Your task to perform on an android device: Open calendar and show me the second week of next month Image 0: 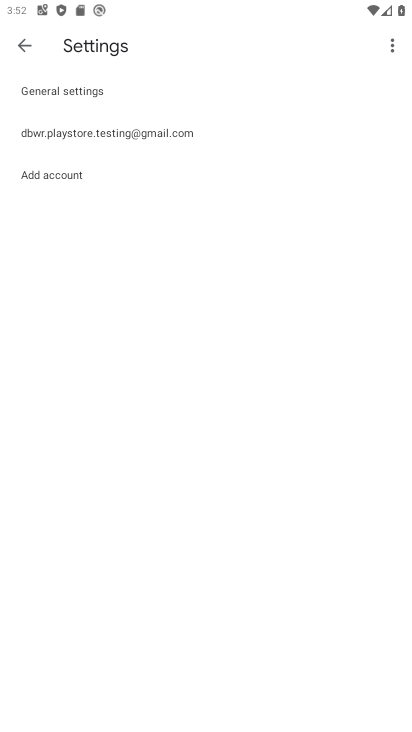
Step 0: press back button
Your task to perform on an android device: Open calendar and show me the second week of next month Image 1: 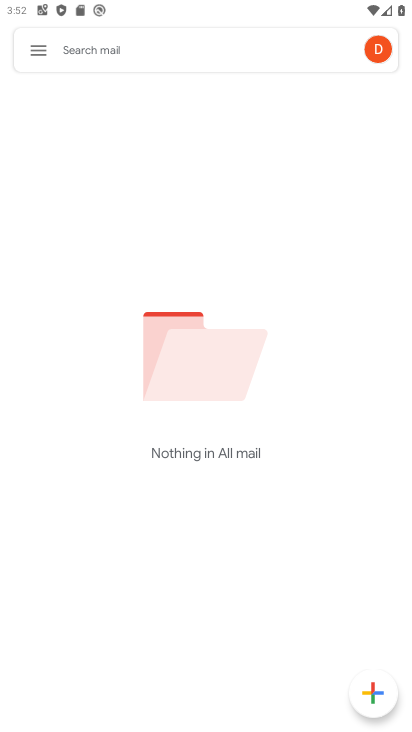
Step 1: press back button
Your task to perform on an android device: Open calendar and show me the second week of next month Image 2: 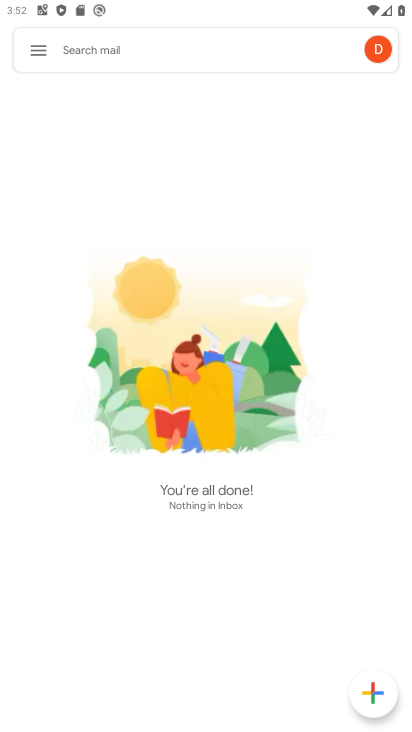
Step 2: press back button
Your task to perform on an android device: Open calendar and show me the second week of next month Image 3: 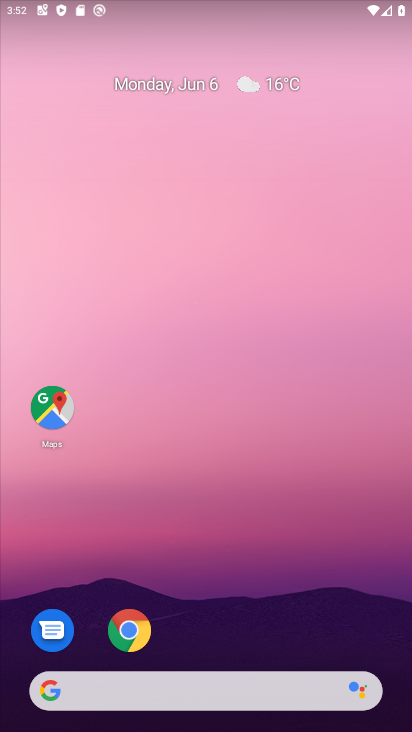
Step 3: drag from (129, 587) to (189, 102)
Your task to perform on an android device: Open calendar and show me the second week of next month Image 4: 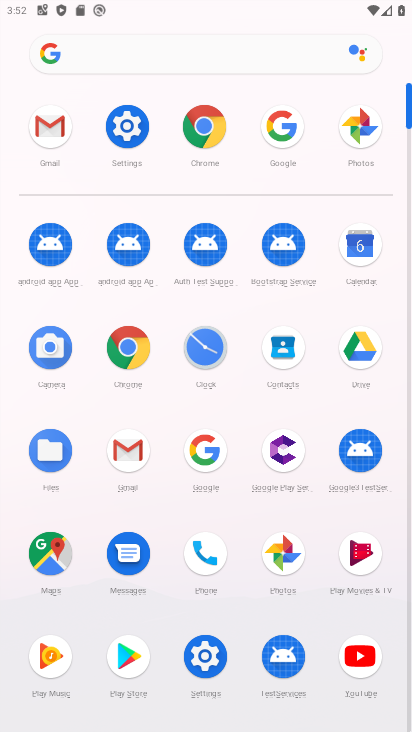
Step 4: click (362, 261)
Your task to perform on an android device: Open calendar and show me the second week of next month Image 5: 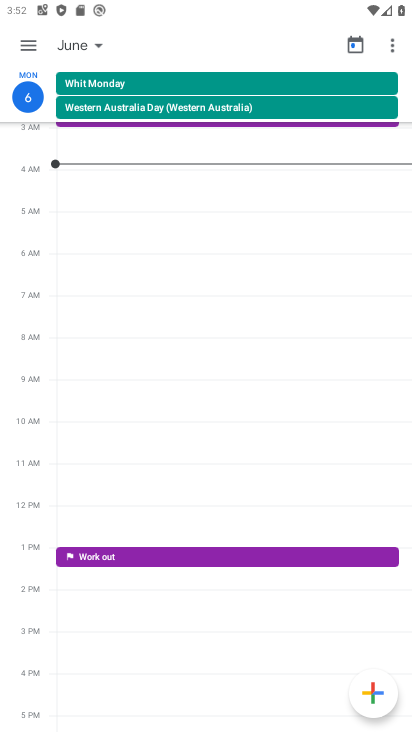
Step 5: click (72, 60)
Your task to perform on an android device: Open calendar and show me the second week of next month Image 6: 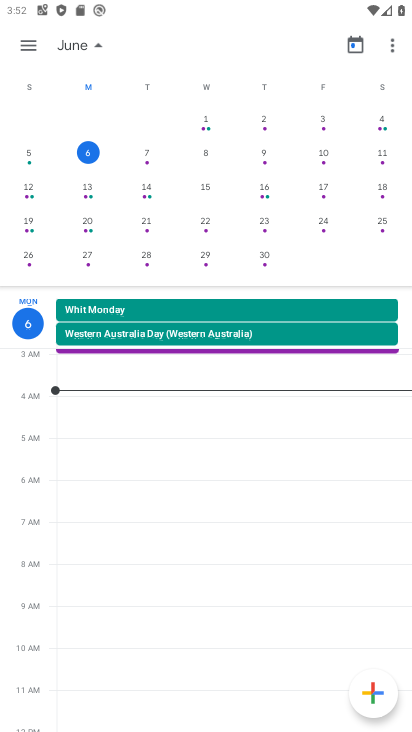
Step 6: drag from (372, 216) to (20, 217)
Your task to perform on an android device: Open calendar and show me the second week of next month Image 7: 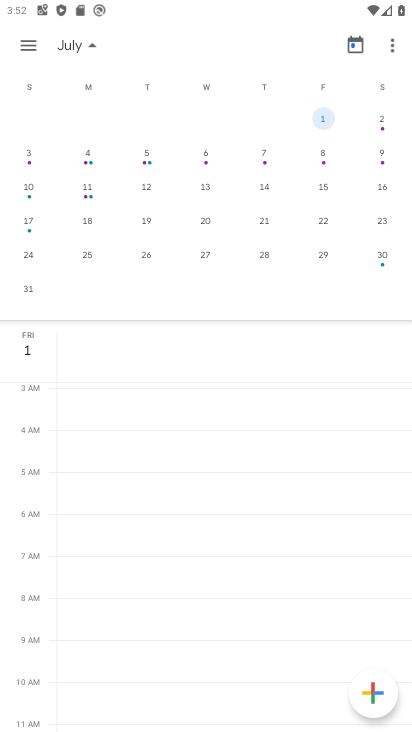
Step 7: click (87, 185)
Your task to perform on an android device: Open calendar and show me the second week of next month Image 8: 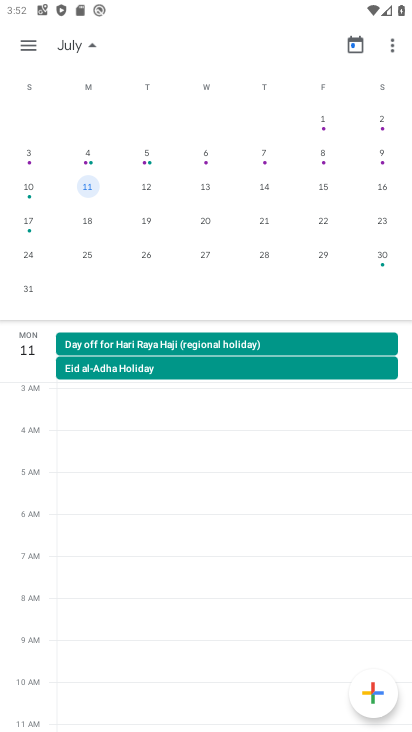
Step 8: task complete